Your task to perform on an android device: find snoozed emails in the gmail app Image 0: 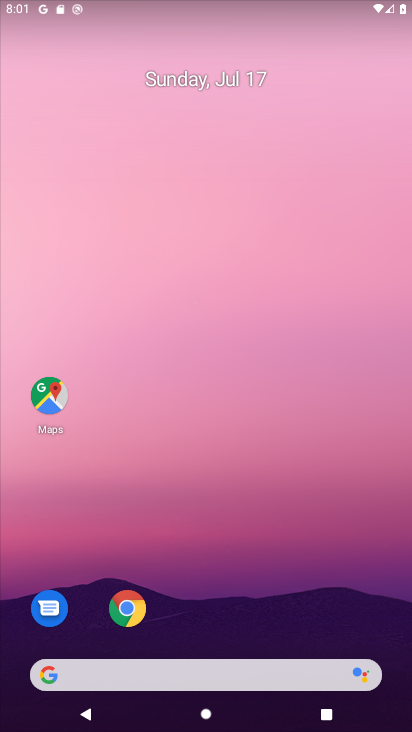
Step 0: drag from (147, 655) to (197, 241)
Your task to perform on an android device: find snoozed emails in the gmail app Image 1: 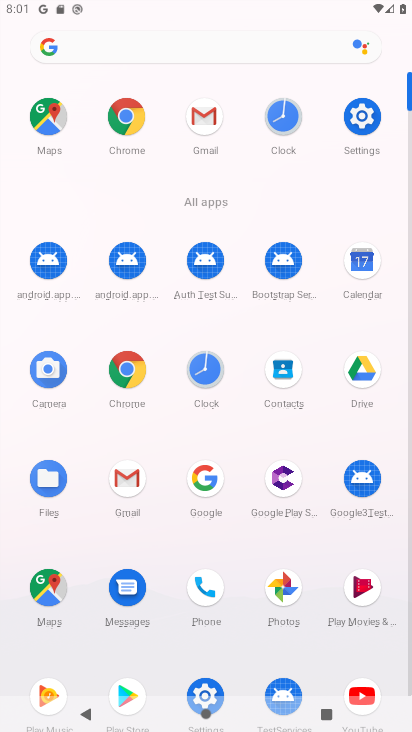
Step 1: click (126, 479)
Your task to perform on an android device: find snoozed emails in the gmail app Image 2: 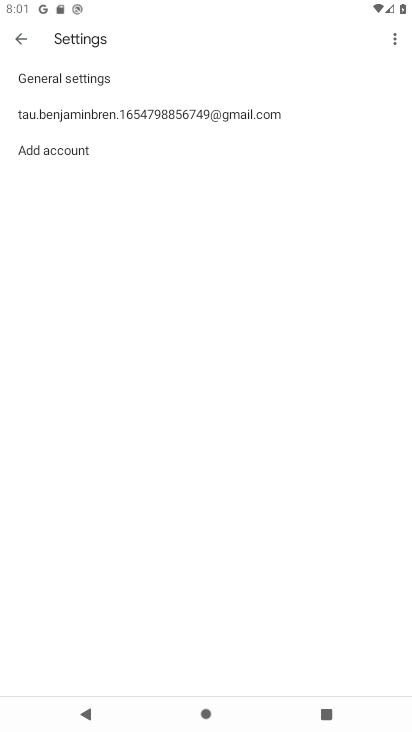
Step 2: click (17, 47)
Your task to perform on an android device: find snoozed emails in the gmail app Image 3: 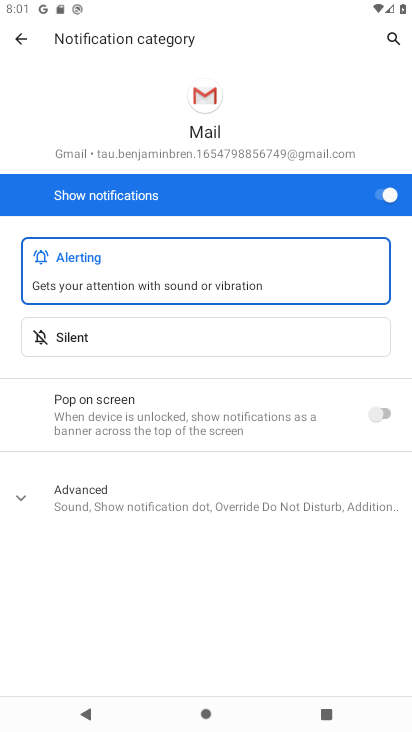
Step 3: click (17, 47)
Your task to perform on an android device: find snoozed emails in the gmail app Image 4: 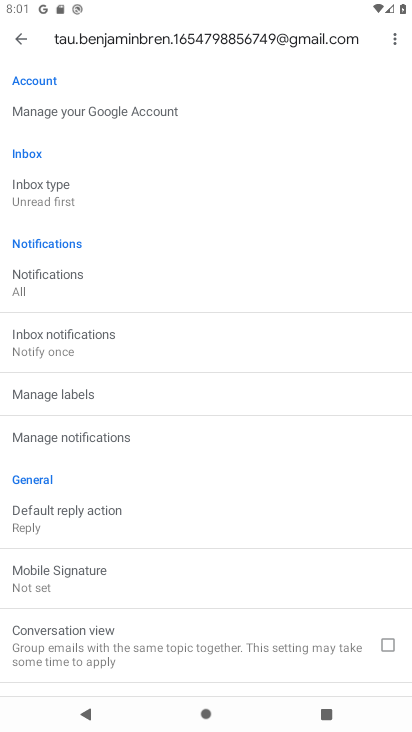
Step 4: click (18, 44)
Your task to perform on an android device: find snoozed emails in the gmail app Image 5: 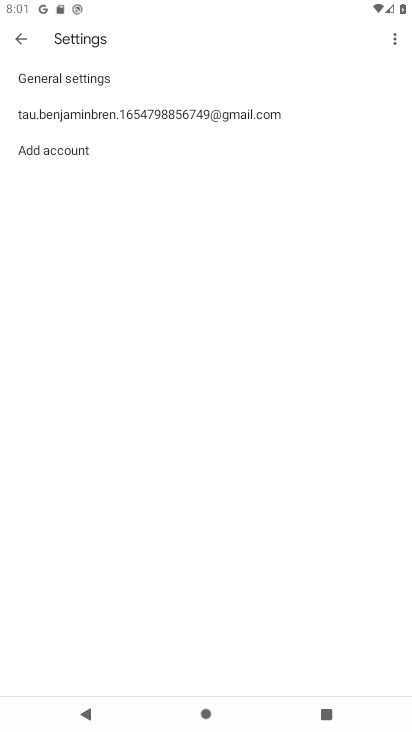
Step 5: click (18, 44)
Your task to perform on an android device: find snoozed emails in the gmail app Image 6: 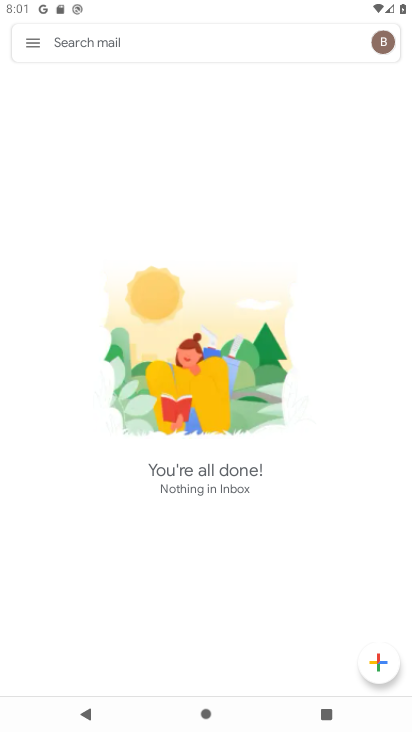
Step 6: click (30, 41)
Your task to perform on an android device: find snoozed emails in the gmail app Image 7: 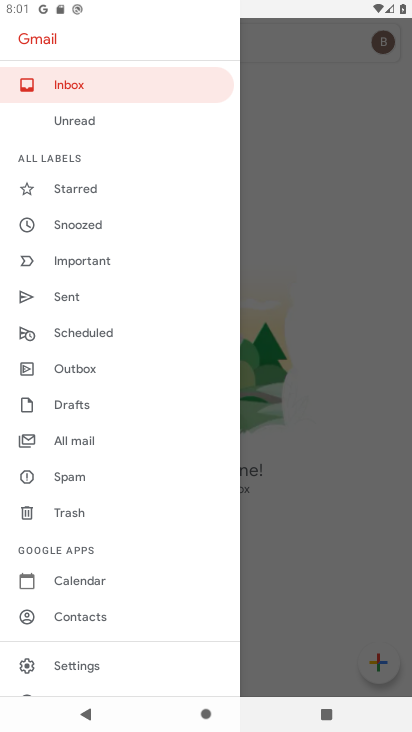
Step 7: click (113, 229)
Your task to perform on an android device: find snoozed emails in the gmail app Image 8: 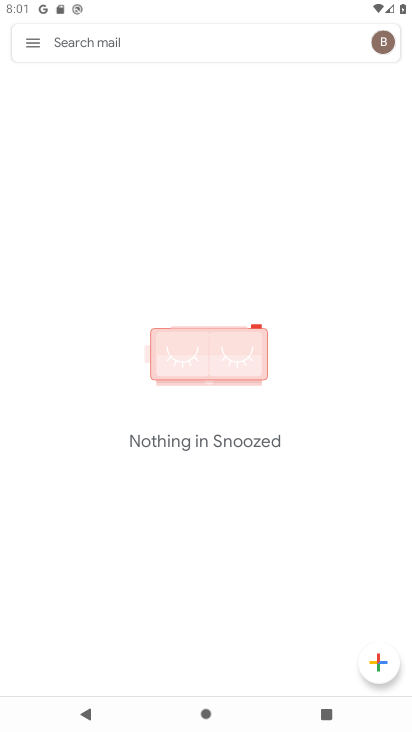
Step 8: task complete